Your task to perform on an android device: Open Google Chrome Image 0: 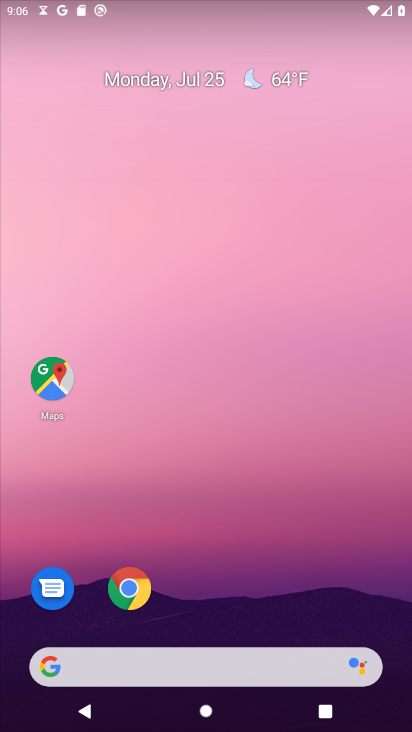
Step 0: click (140, 591)
Your task to perform on an android device: Open Google Chrome Image 1: 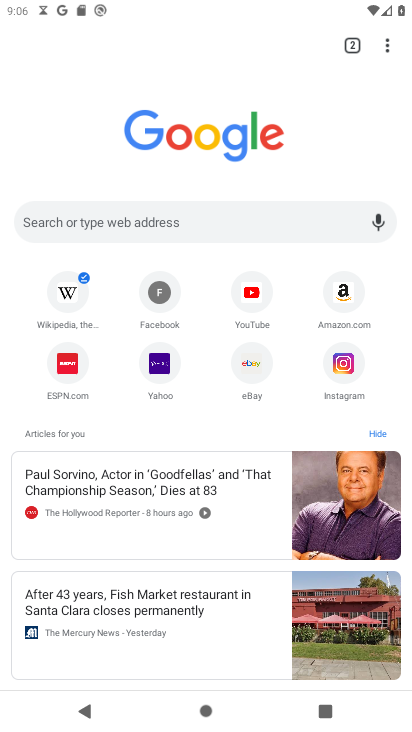
Step 1: task complete